Your task to perform on an android device: open sync settings in chrome Image 0: 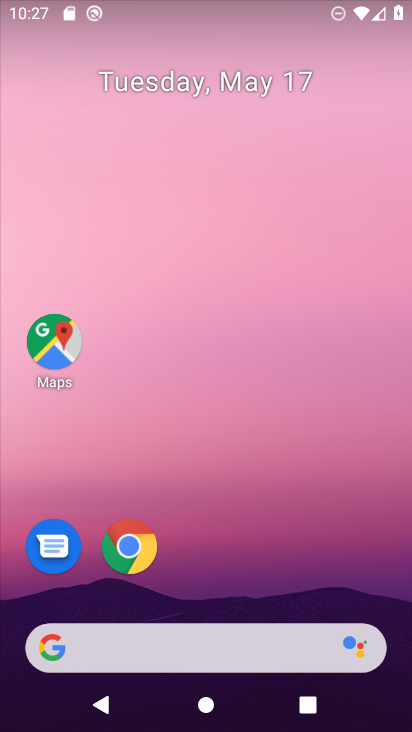
Step 0: click (129, 548)
Your task to perform on an android device: open sync settings in chrome Image 1: 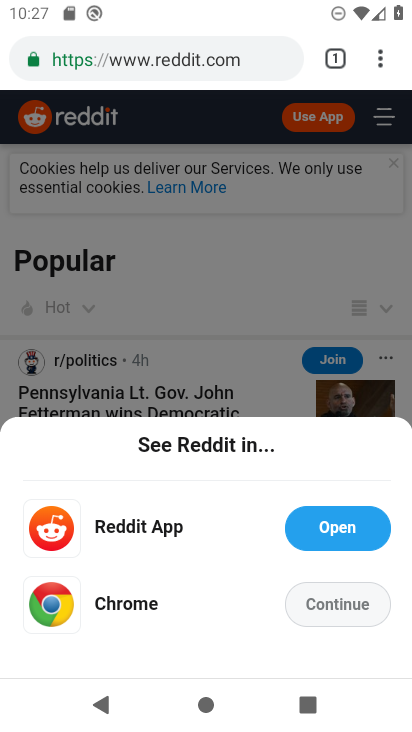
Step 1: click (380, 65)
Your task to perform on an android device: open sync settings in chrome Image 2: 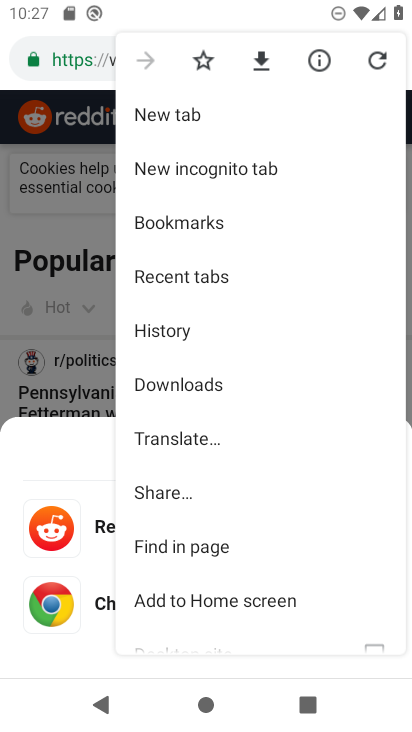
Step 2: drag from (249, 564) to (249, 249)
Your task to perform on an android device: open sync settings in chrome Image 3: 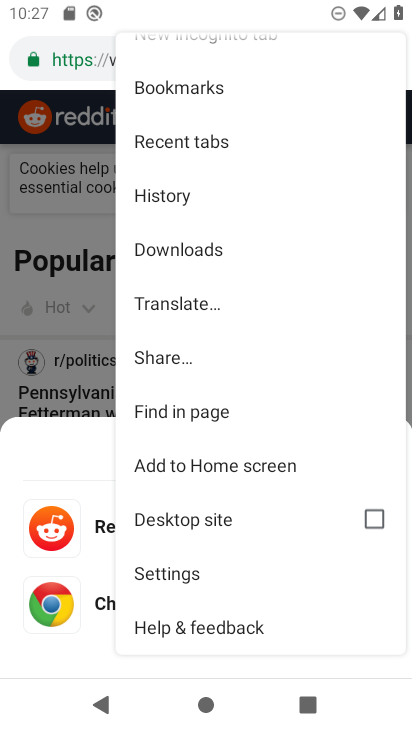
Step 3: click (176, 567)
Your task to perform on an android device: open sync settings in chrome Image 4: 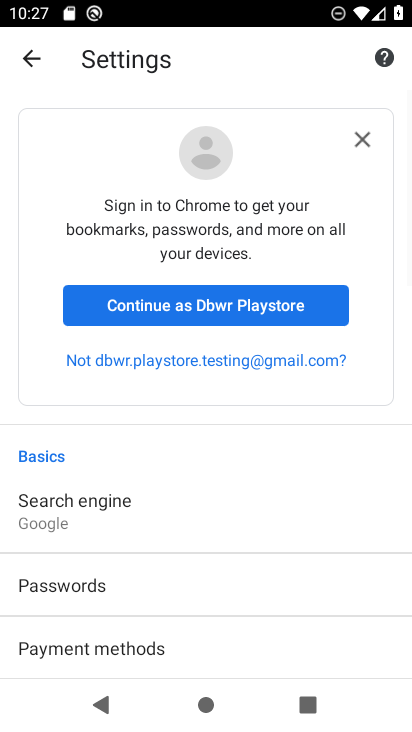
Step 4: click (208, 304)
Your task to perform on an android device: open sync settings in chrome Image 5: 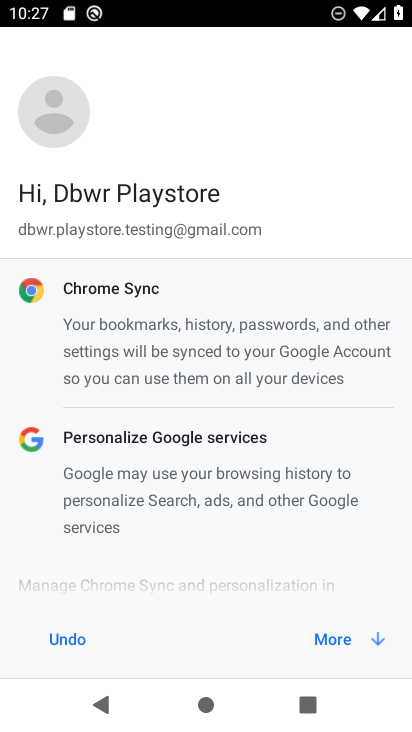
Step 5: click (342, 636)
Your task to perform on an android device: open sync settings in chrome Image 6: 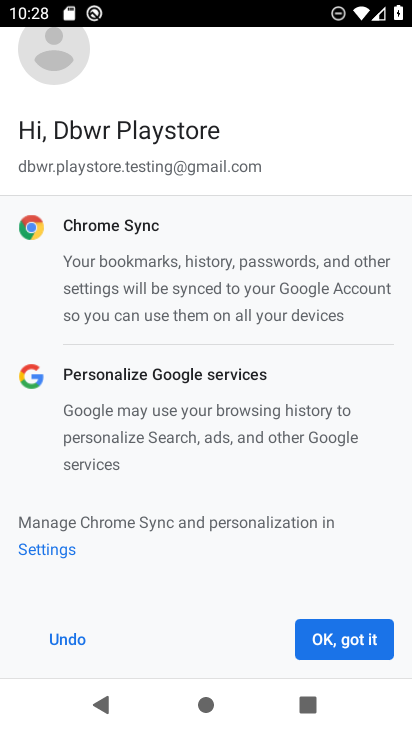
Step 6: click (342, 636)
Your task to perform on an android device: open sync settings in chrome Image 7: 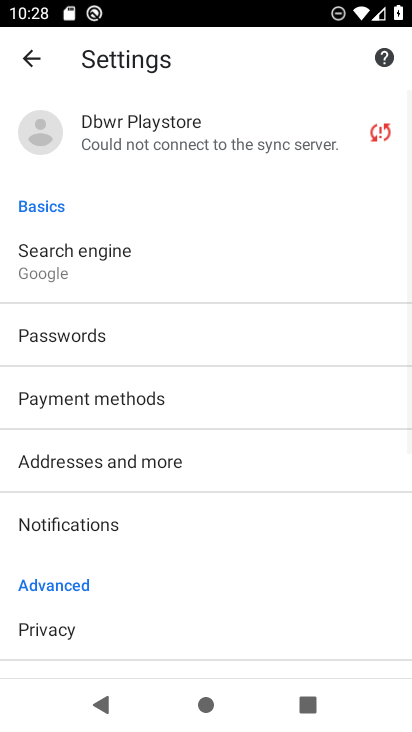
Step 7: click (187, 128)
Your task to perform on an android device: open sync settings in chrome Image 8: 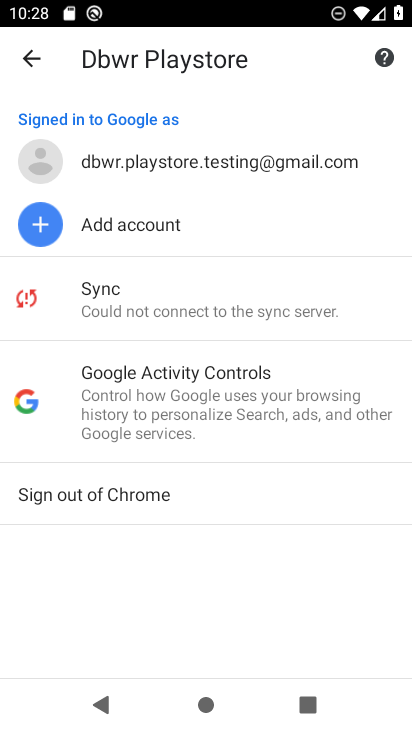
Step 8: click (131, 297)
Your task to perform on an android device: open sync settings in chrome Image 9: 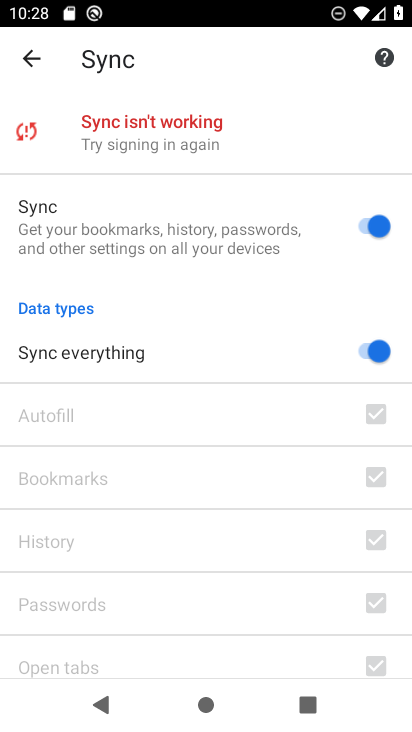
Step 9: task complete